Your task to perform on an android device: Go to internet settings Image 0: 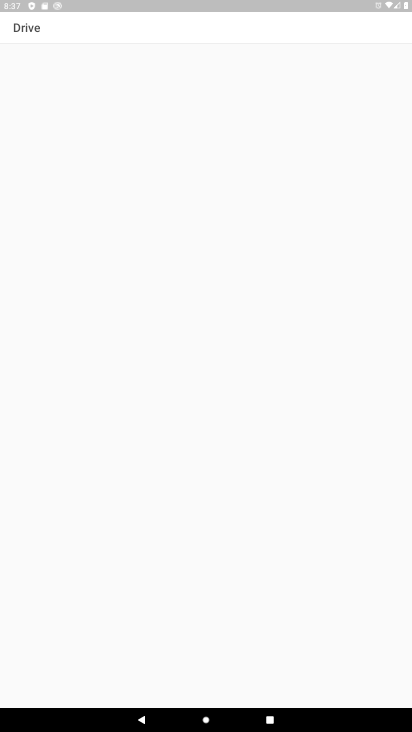
Step 0: press home button
Your task to perform on an android device: Go to internet settings Image 1: 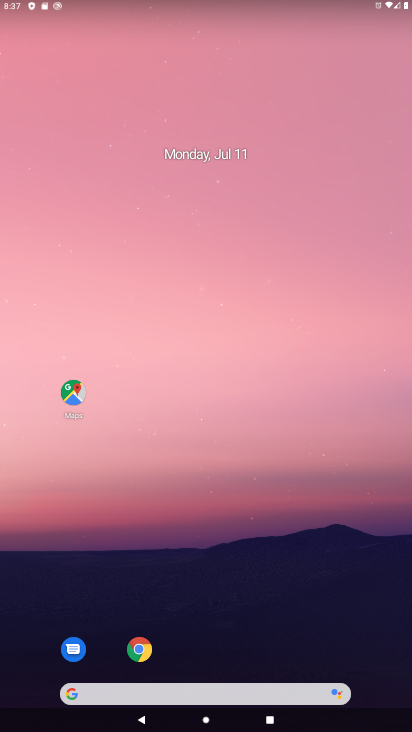
Step 1: drag from (196, 701) to (198, 264)
Your task to perform on an android device: Go to internet settings Image 2: 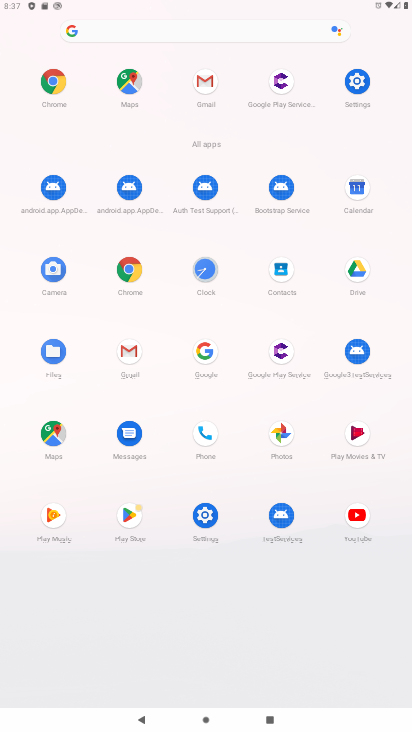
Step 2: click (358, 79)
Your task to perform on an android device: Go to internet settings Image 3: 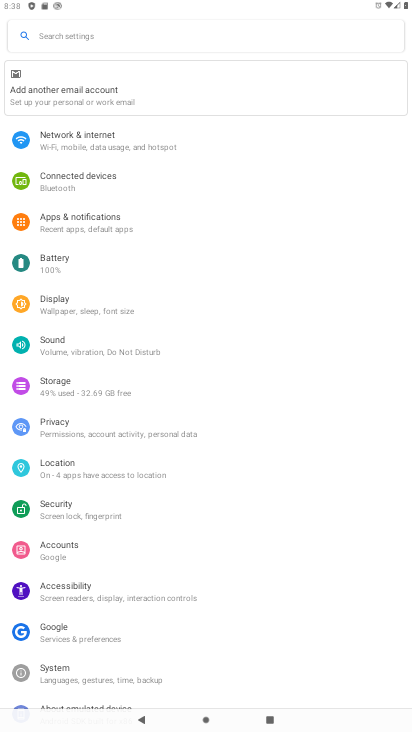
Step 3: click (124, 142)
Your task to perform on an android device: Go to internet settings Image 4: 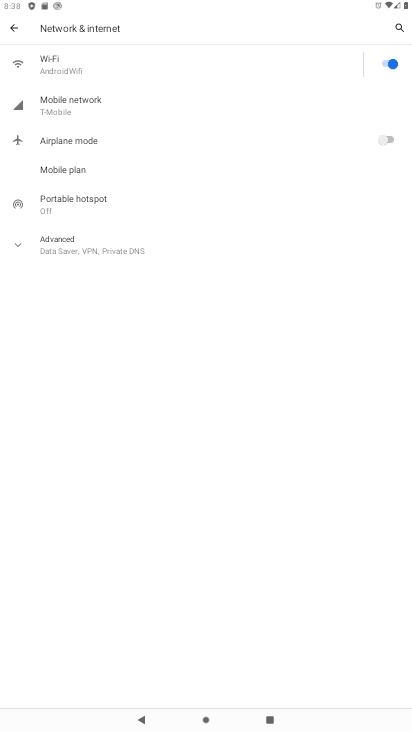
Step 4: task complete